Your task to perform on an android device: Open Wikipedia Image 0: 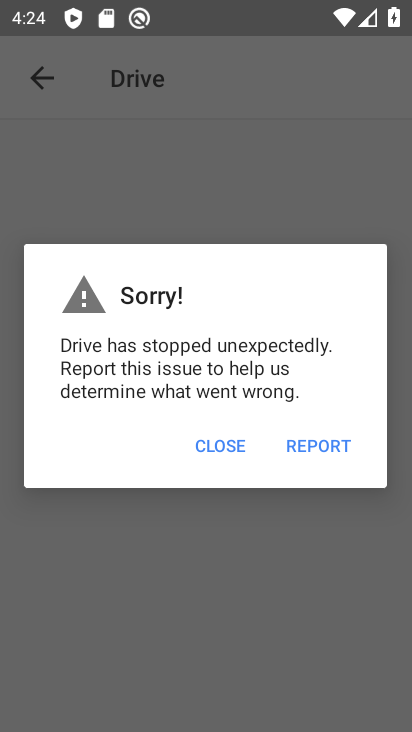
Step 0: press home button
Your task to perform on an android device: Open Wikipedia Image 1: 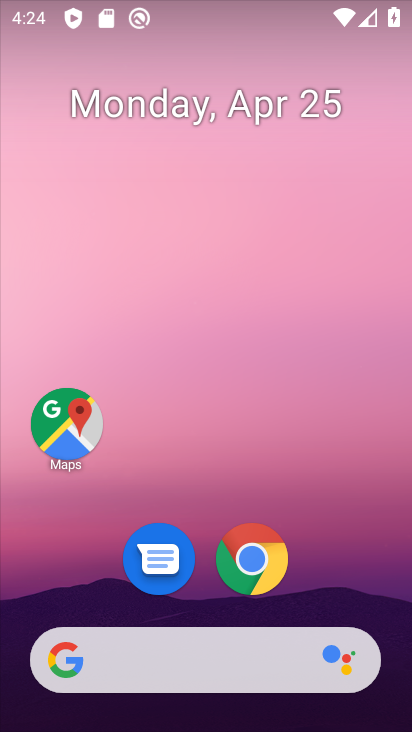
Step 1: click (263, 565)
Your task to perform on an android device: Open Wikipedia Image 2: 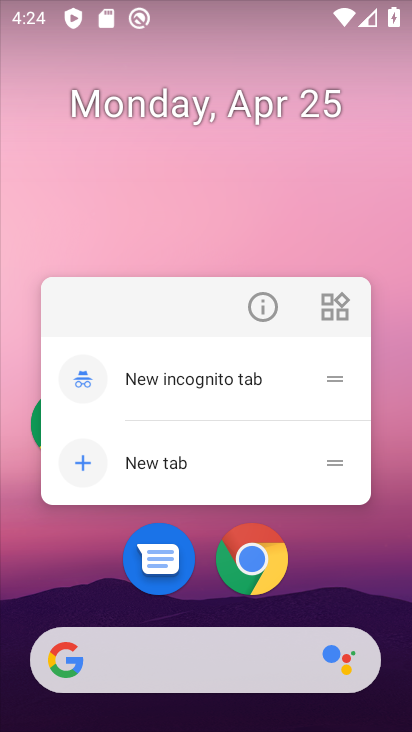
Step 2: click (232, 468)
Your task to perform on an android device: Open Wikipedia Image 3: 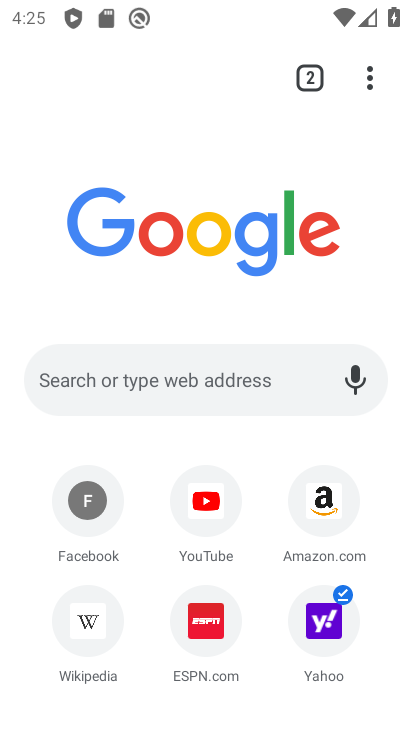
Step 3: click (102, 624)
Your task to perform on an android device: Open Wikipedia Image 4: 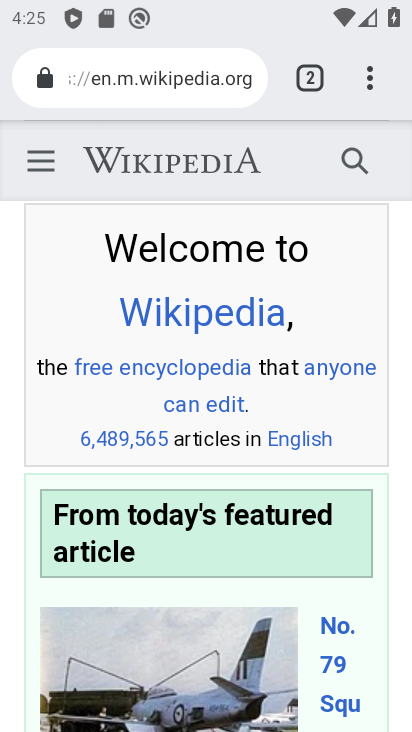
Step 4: task complete